Your task to perform on an android device: Turn on the flashlight Image 0: 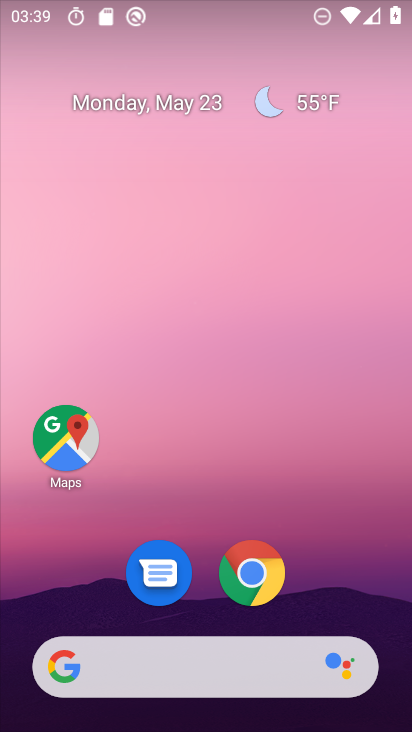
Step 0: drag from (338, 582) to (330, 56)
Your task to perform on an android device: Turn on the flashlight Image 1: 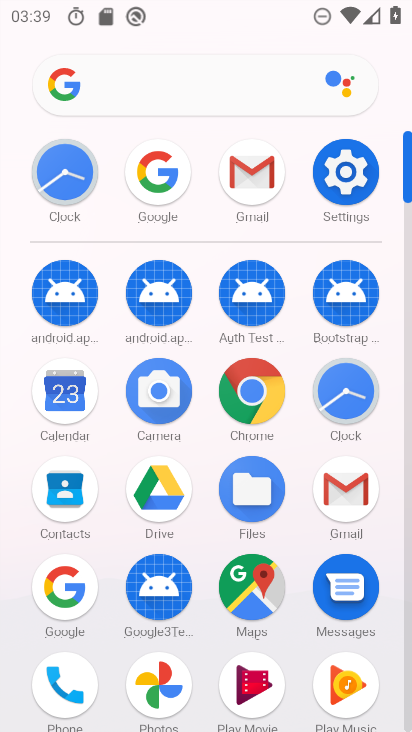
Step 1: click (348, 182)
Your task to perform on an android device: Turn on the flashlight Image 2: 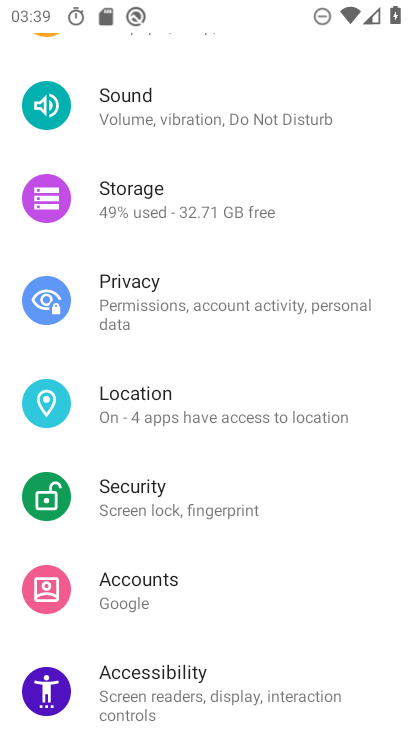
Step 2: drag from (297, 231) to (252, 606)
Your task to perform on an android device: Turn on the flashlight Image 3: 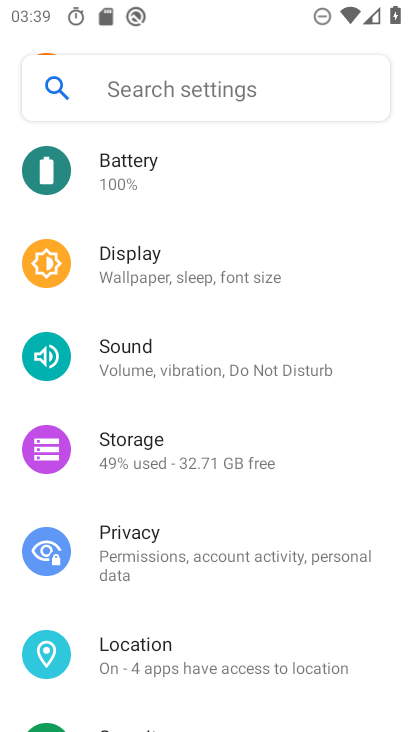
Step 3: drag from (247, 208) to (218, 530)
Your task to perform on an android device: Turn on the flashlight Image 4: 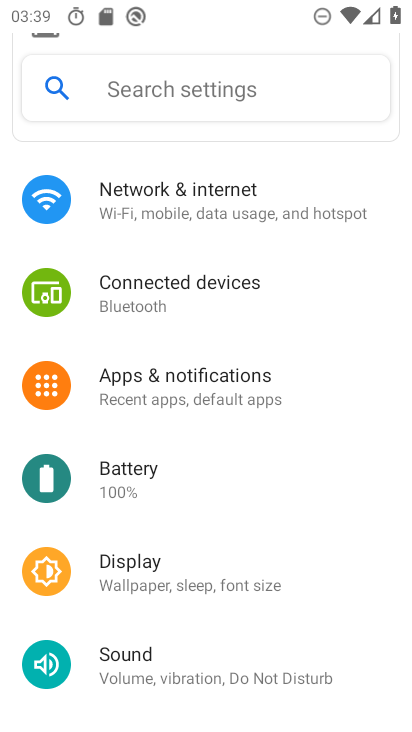
Step 4: click (215, 396)
Your task to perform on an android device: Turn on the flashlight Image 5: 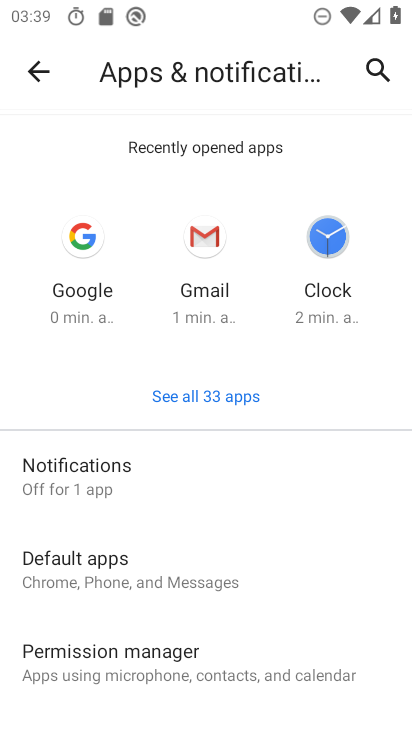
Step 5: drag from (264, 612) to (234, 87)
Your task to perform on an android device: Turn on the flashlight Image 6: 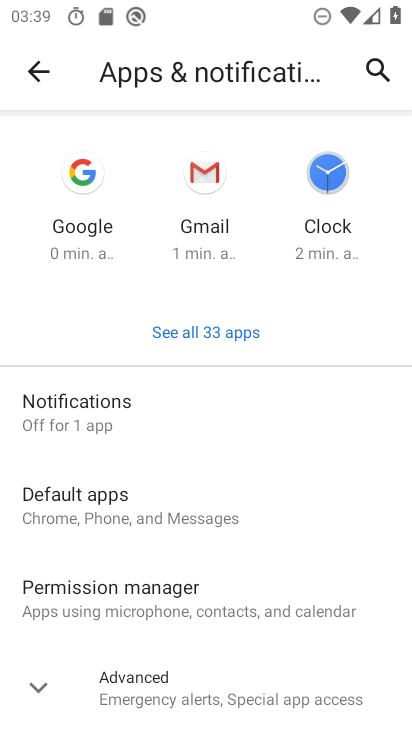
Step 6: click (193, 689)
Your task to perform on an android device: Turn on the flashlight Image 7: 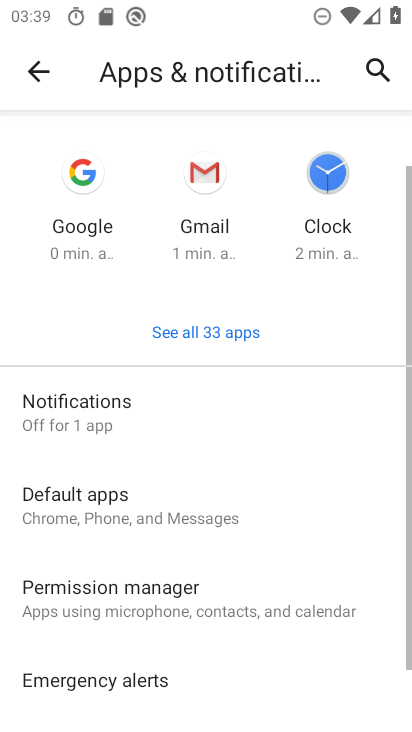
Step 7: drag from (261, 590) to (270, 113)
Your task to perform on an android device: Turn on the flashlight Image 8: 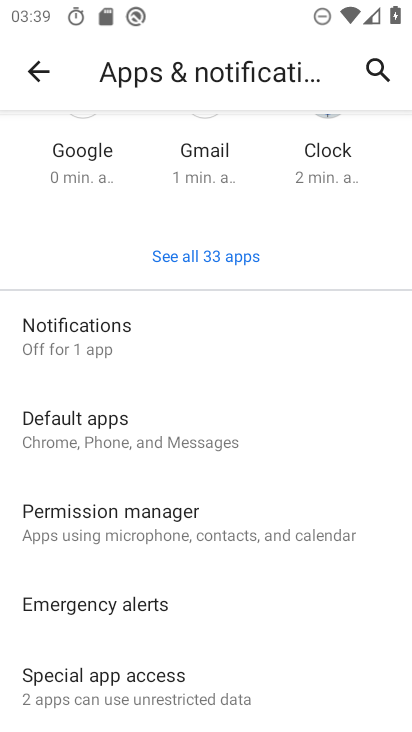
Step 8: click (163, 689)
Your task to perform on an android device: Turn on the flashlight Image 9: 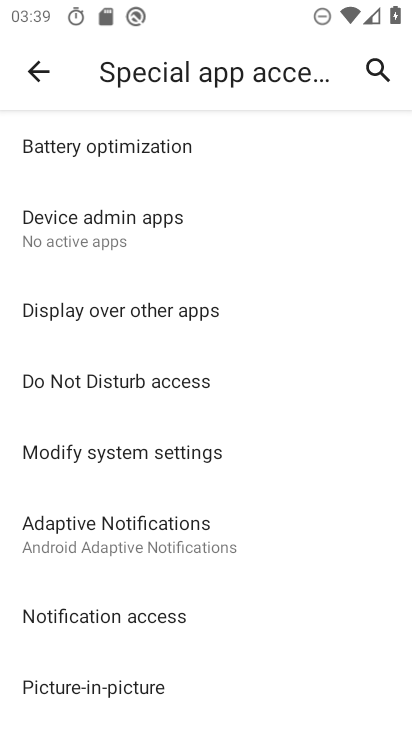
Step 9: task complete